Your task to perform on an android device: Go to wifi settings Image 0: 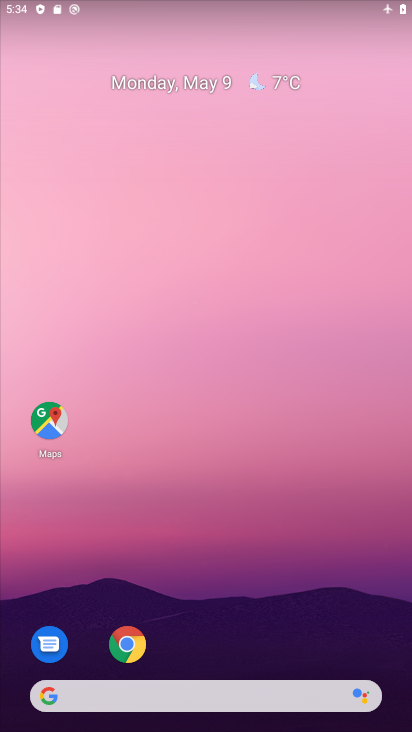
Step 0: drag from (265, 605) to (252, 72)
Your task to perform on an android device: Go to wifi settings Image 1: 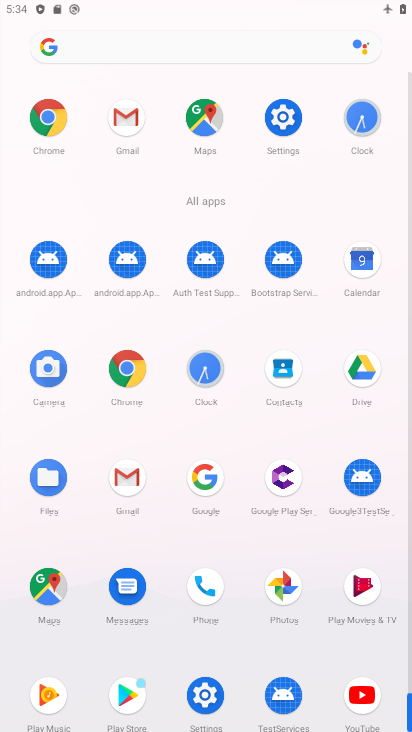
Step 1: click (285, 119)
Your task to perform on an android device: Go to wifi settings Image 2: 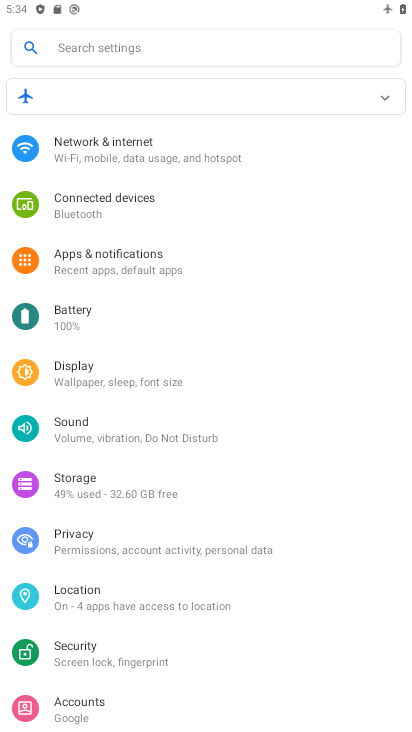
Step 2: click (89, 166)
Your task to perform on an android device: Go to wifi settings Image 3: 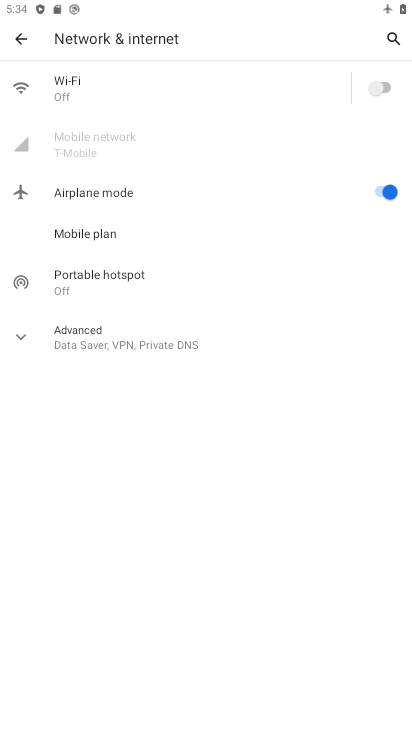
Step 3: click (104, 89)
Your task to perform on an android device: Go to wifi settings Image 4: 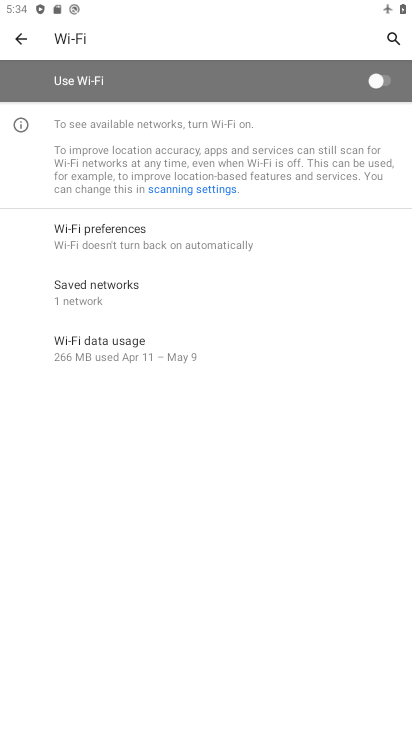
Step 4: task complete